Your task to perform on an android device: open sync settings in chrome Image 0: 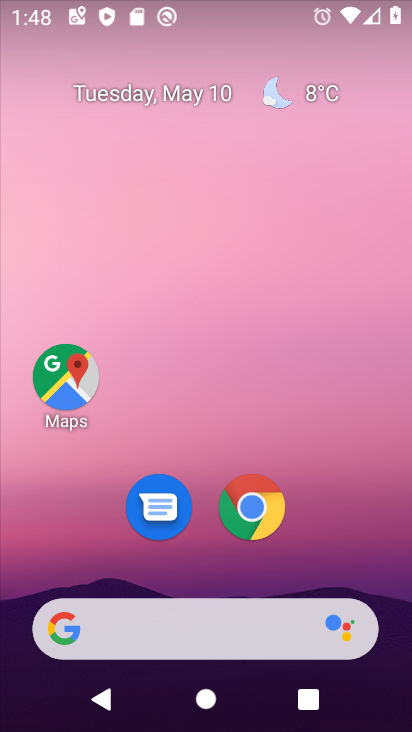
Step 0: click (248, 509)
Your task to perform on an android device: open sync settings in chrome Image 1: 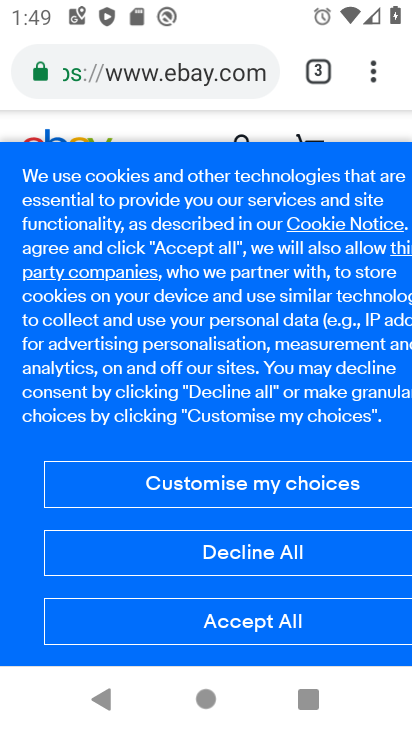
Step 1: click (373, 79)
Your task to perform on an android device: open sync settings in chrome Image 2: 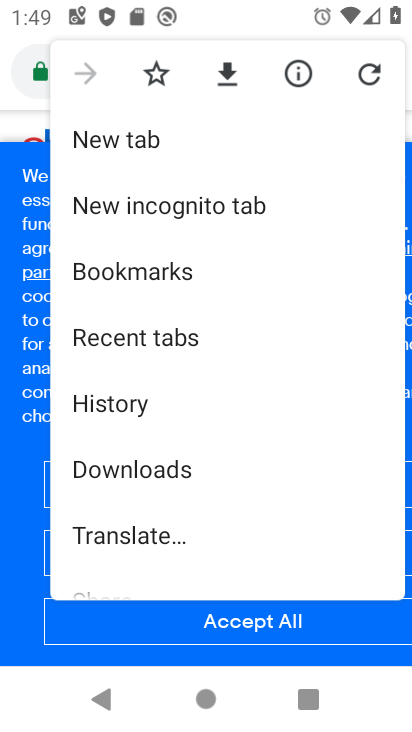
Step 2: drag from (139, 552) to (141, 177)
Your task to perform on an android device: open sync settings in chrome Image 3: 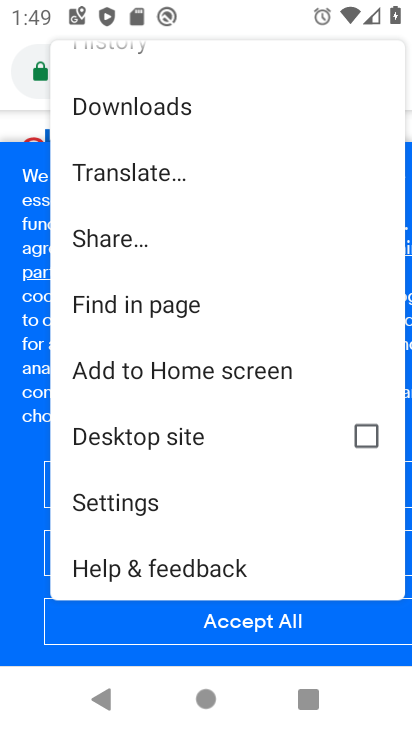
Step 3: click (122, 496)
Your task to perform on an android device: open sync settings in chrome Image 4: 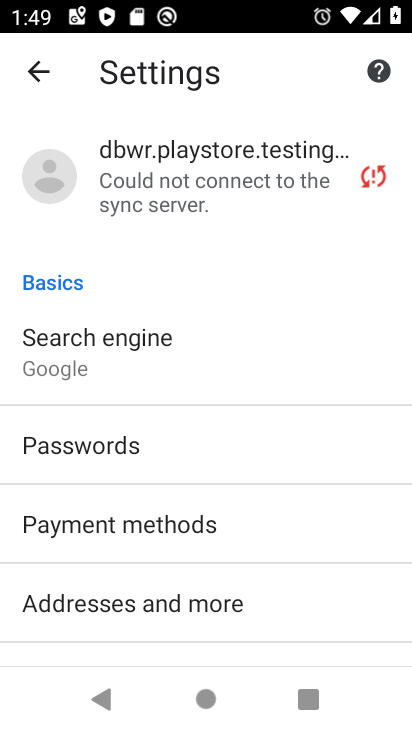
Step 4: drag from (158, 620) to (155, 213)
Your task to perform on an android device: open sync settings in chrome Image 5: 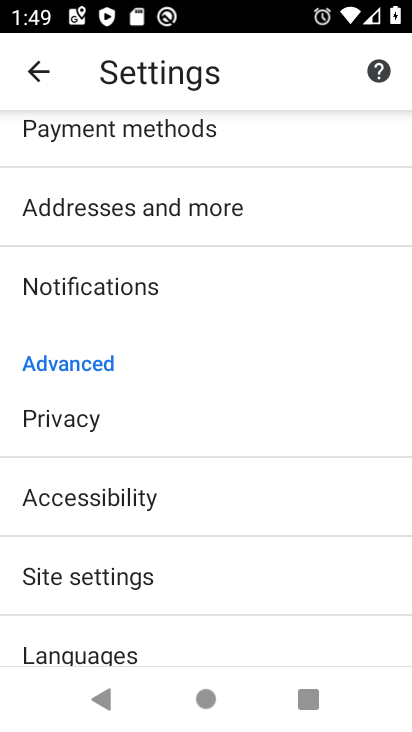
Step 5: click (87, 574)
Your task to perform on an android device: open sync settings in chrome Image 6: 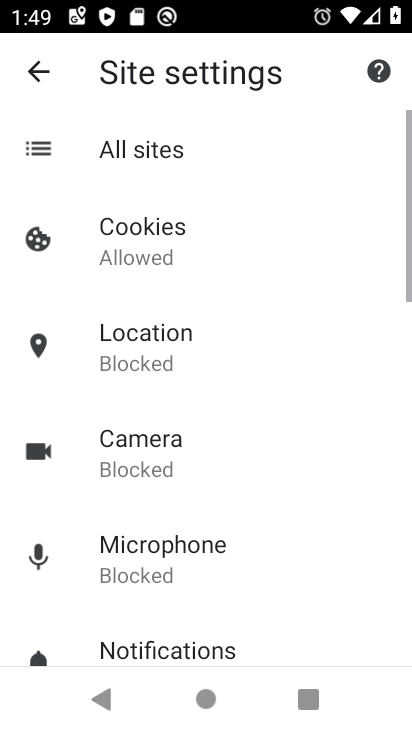
Step 6: drag from (140, 634) to (174, 217)
Your task to perform on an android device: open sync settings in chrome Image 7: 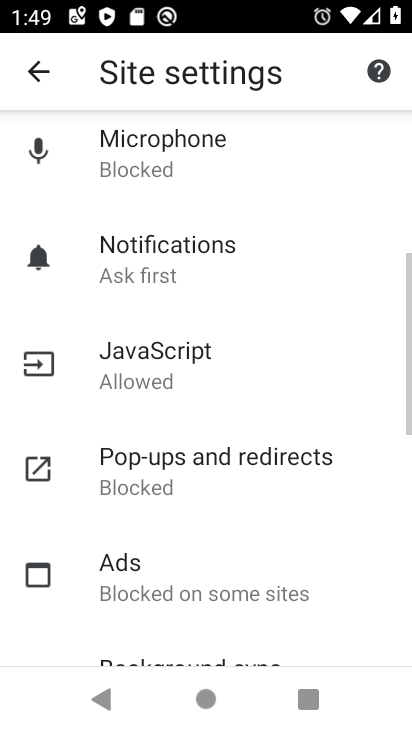
Step 7: drag from (140, 624) to (142, 284)
Your task to perform on an android device: open sync settings in chrome Image 8: 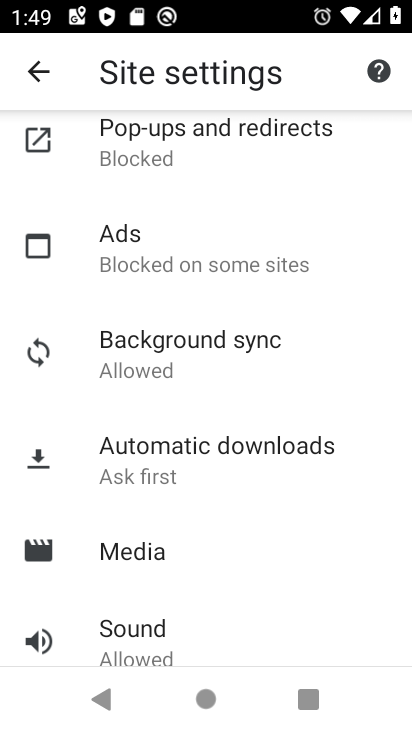
Step 8: click (160, 347)
Your task to perform on an android device: open sync settings in chrome Image 9: 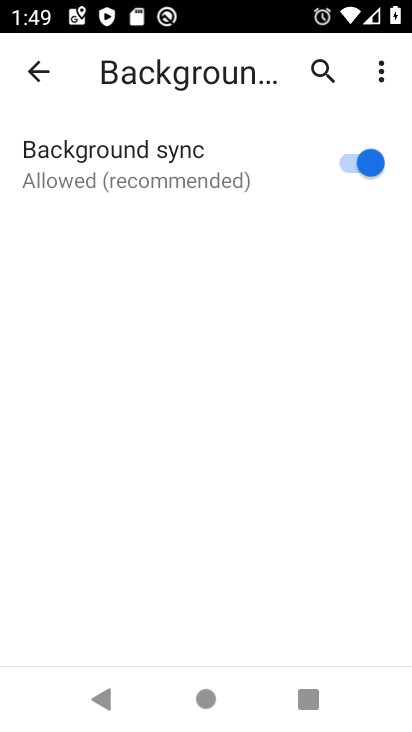
Step 9: task complete